Your task to perform on an android device: Is it going to rain today? Image 0: 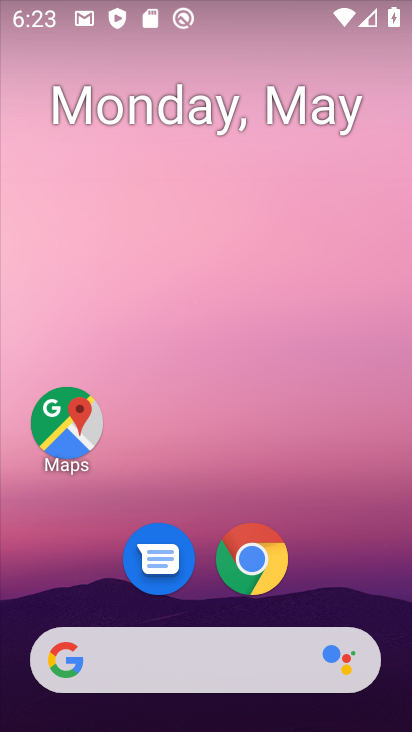
Step 0: drag from (404, 647) to (274, 58)
Your task to perform on an android device: Is it going to rain today? Image 1: 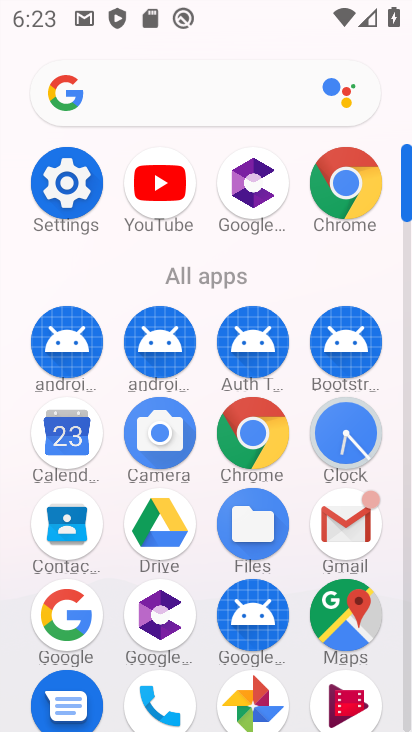
Step 1: click (71, 612)
Your task to perform on an android device: Is it going to rain today? Image 2: 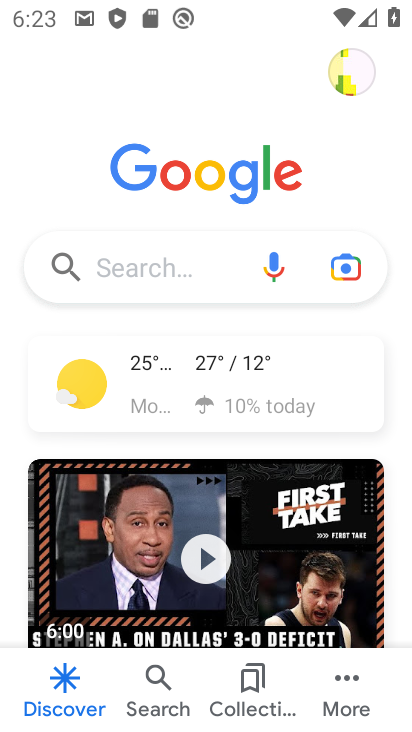
Step 2: click (120, 273)
Your task to perform on an android device: Is it going to rain today? Image 3: 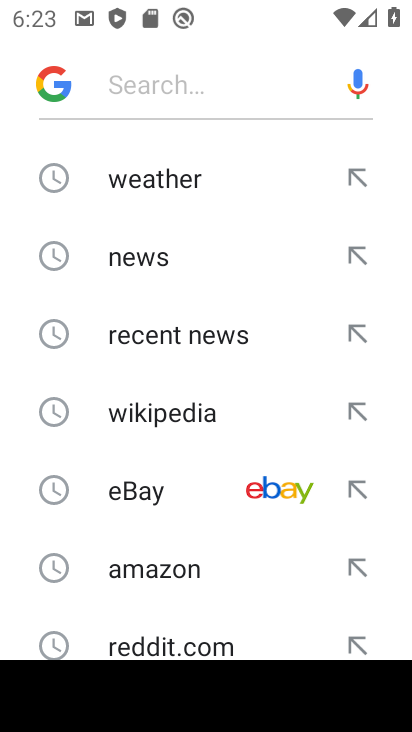
Step 3: drag from (206, 448) to (237, 25)
Your task to perform on an android device: Is it going to rain today? Image 4: 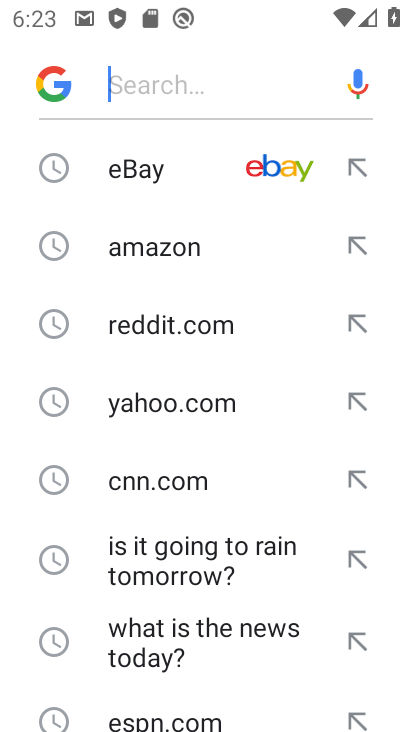
Step 4: drag from (220, 657) to (302, 193)
Your task to perform on an android device: Is it going to rain today? Image 5: 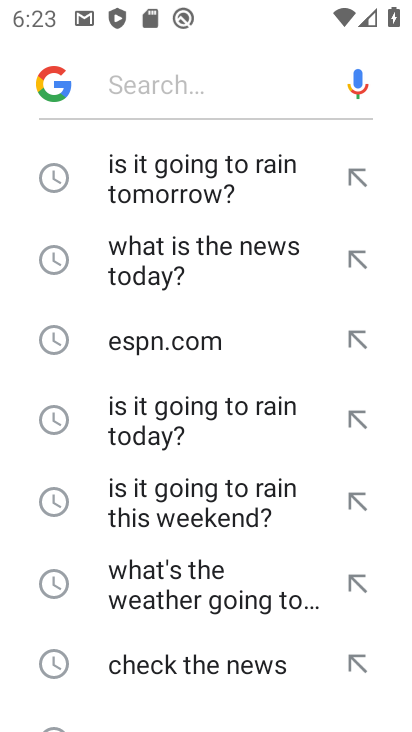
Step 5: click (245, 412)
Your task to perform on an android device: Is it going to rain today? Image 6: 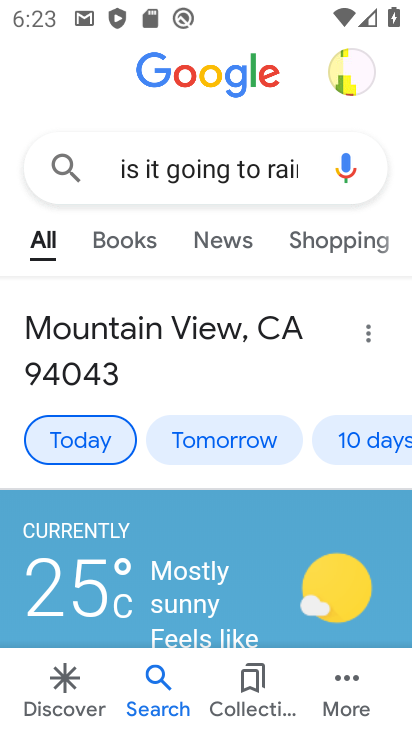
Step 6: task complete